Your task to perform on an android device: Turn on the flashlight Image 0: 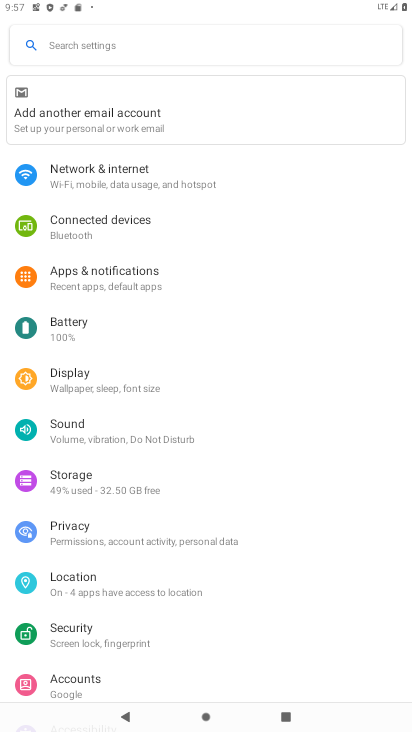
Step 0: press home button
Your task to perform on an android device: Turn on the flashlight Image 1: 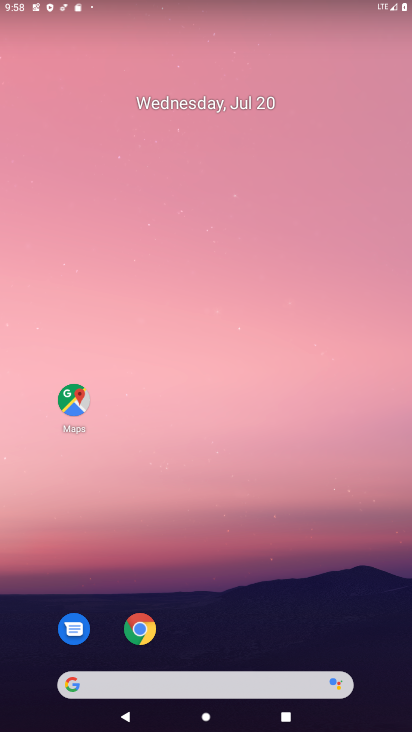
Step 1: task complete